Your task to perform on an android device: Go to internet settings Image 0: 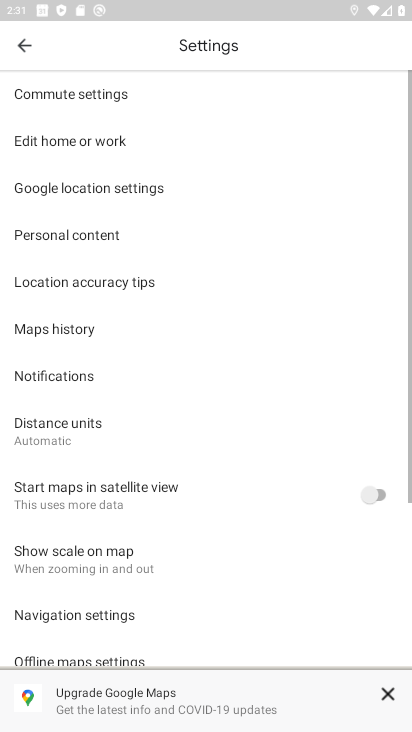
Step 0: press home button
Your task to perform on an android device: Go to internet settings Image 1: 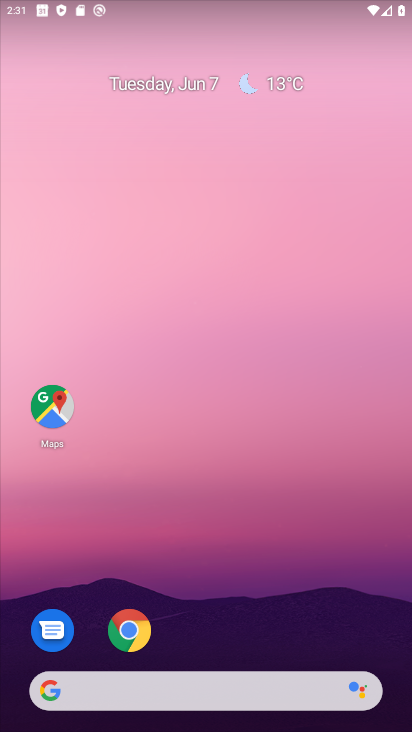
Step 1: drag from (221, 669) to (255, 119)
Your task to perform on an android device: Go to internet settings Image 2: 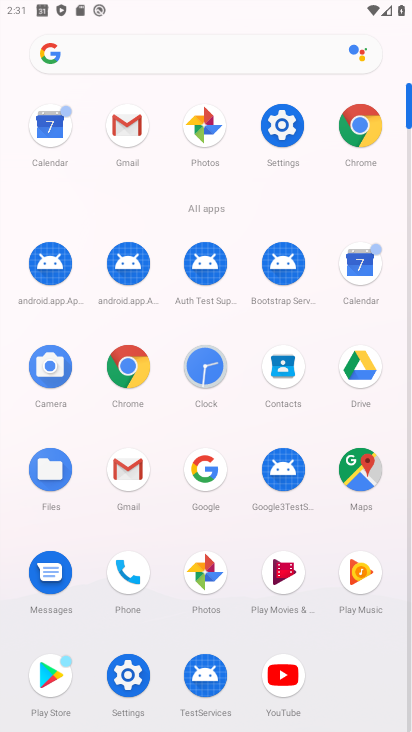
Step 2: click (272, 140)
Your task to perform on an android device: Go to internet settings Image 3: 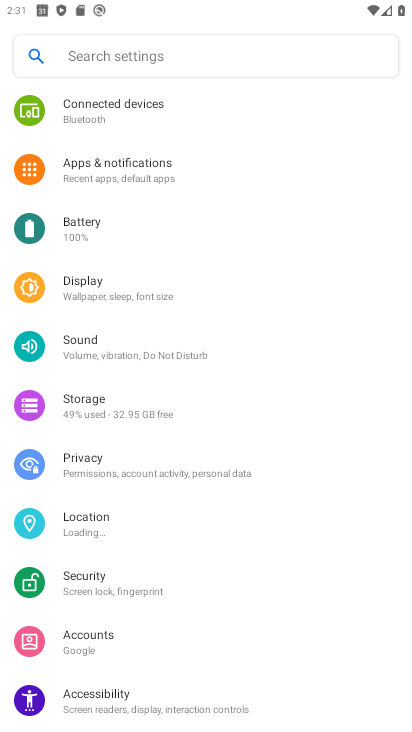
Step 3: drag from (171, 111) to (169, 503)
Your task to perform on an android device: Go to internet settings Image 4: 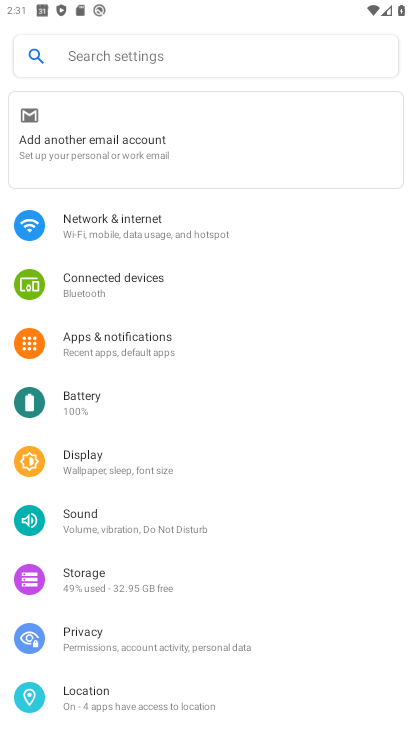
Step 4: click (67, 246)
Your task to perform on an android device: Go to internet settings Image 5: 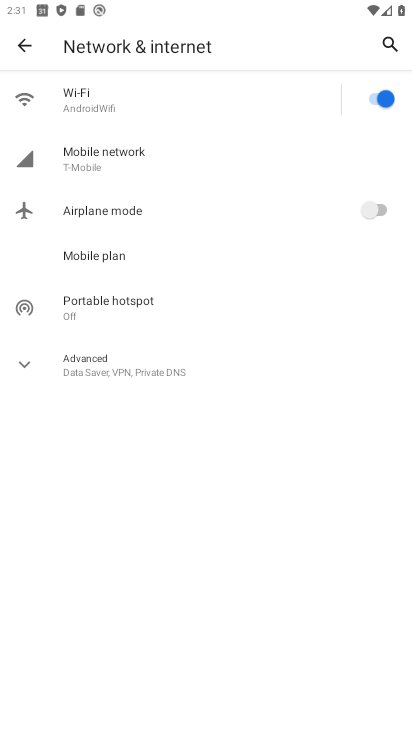
Step 5: task complete